Your task to perform on an android device: Search for Italian restaurants on Maps Image 0: 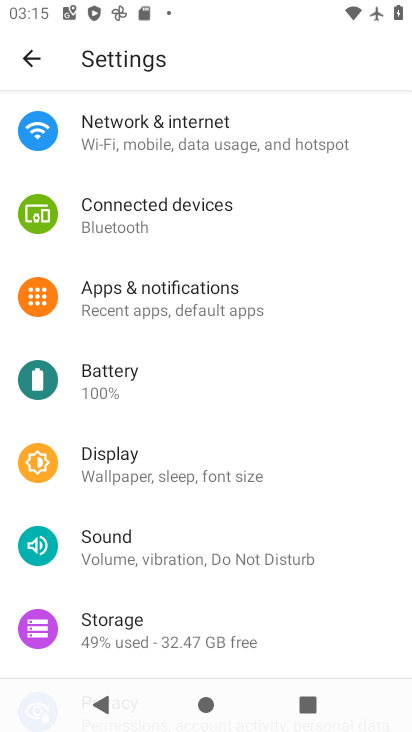
Step 0: press home button
Your task to perform on an android device: Search for Italian restaurants on Maps Image 1: 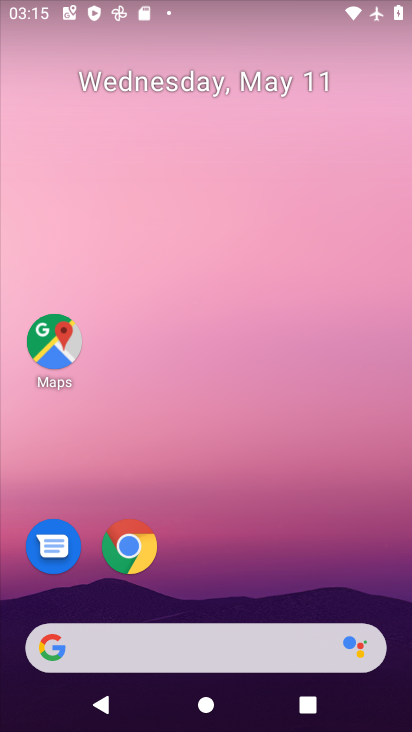
Step 1: drag from (174, 574) to (235, 191)
Your task to perform on an android device: Search for Italian restaurants on Maps Image 2: 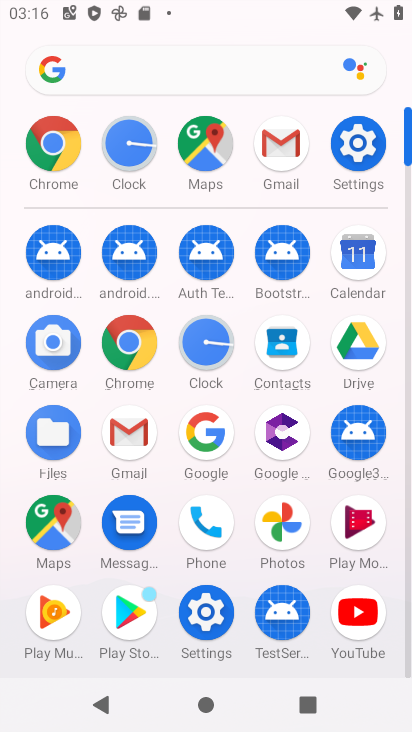
Step 2: click (59, 511)
Your task to perform on an android device: Search for Italian restaurants on Maps Image 3: 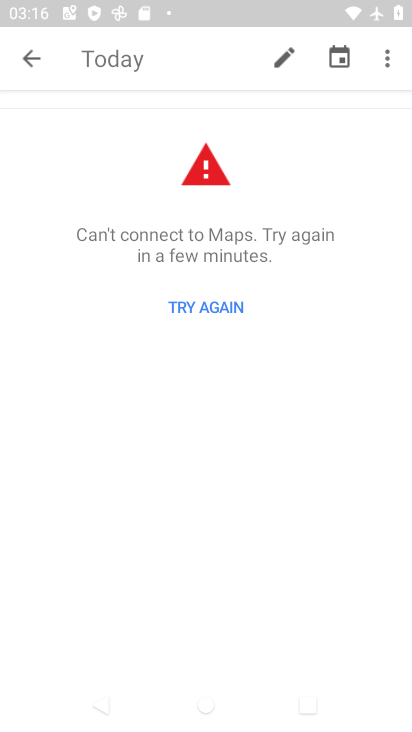
Step 3: click (204, 305)
Your task to perform on an android device: Search for Italian restaurants on Maps Image 4: 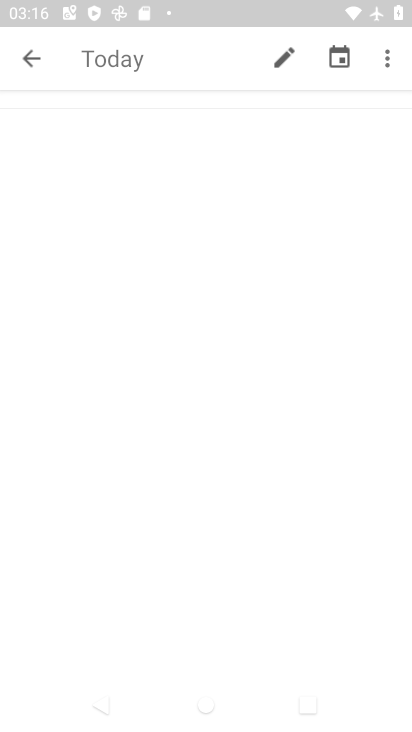
Step 4: click (30, 41)
Your task to perform on an android device: Search for Italian restaurants on Maps Image 5: 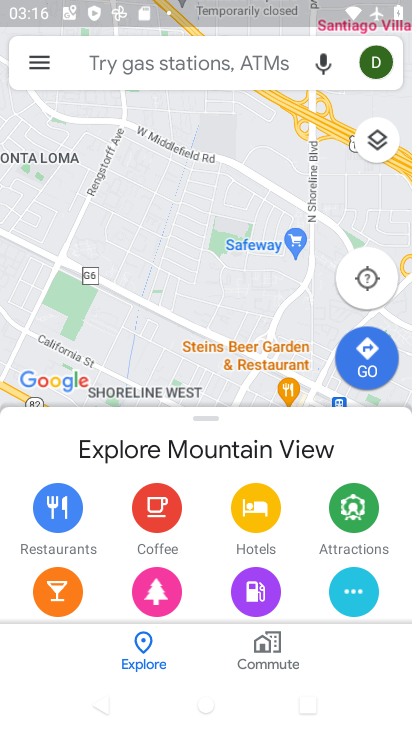
Step 5: click (213, 70)
Your task to perform on an android device: Search for Italian restaurants on Maps Image 6: 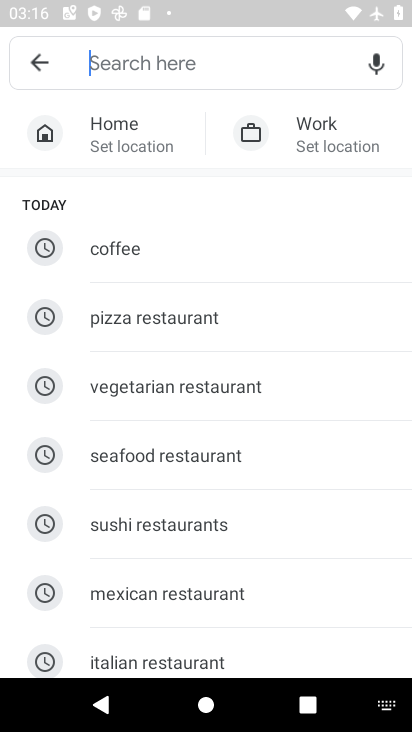
Step 6: click (171, 654)
Your task to perform on an android device: Search for Italian restaurants on Maps Image 7: 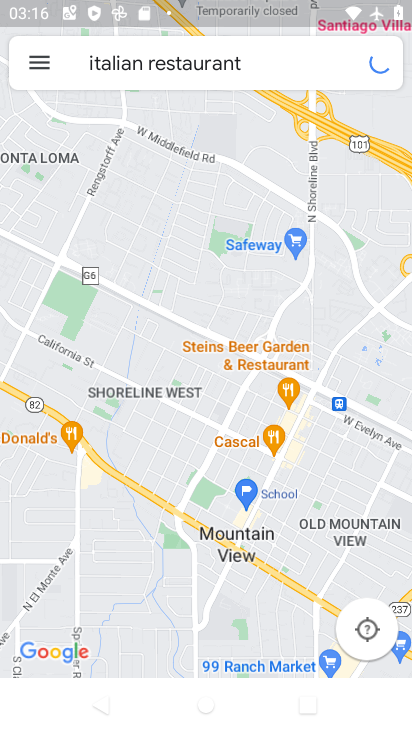
Step 7: task complete